Your task to perform on an android device: Open the Play Movies app and select the watchlist tab. Image 0: 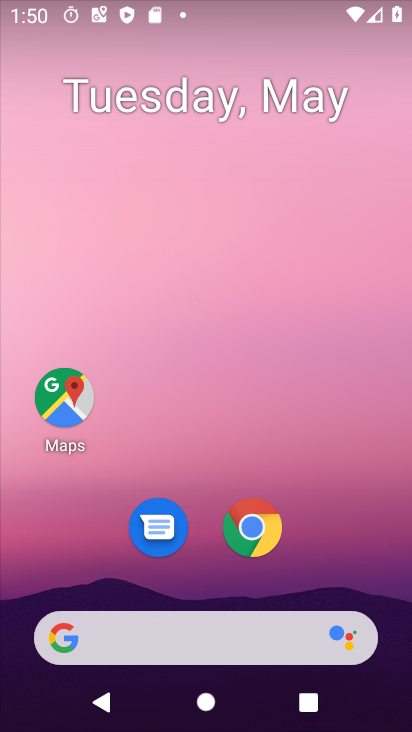
Step 0: drag from (256, 664) to (146, 192)
Your task to perform on an android device: Open the Play Movies app and select the watchlist tab. Image 1: 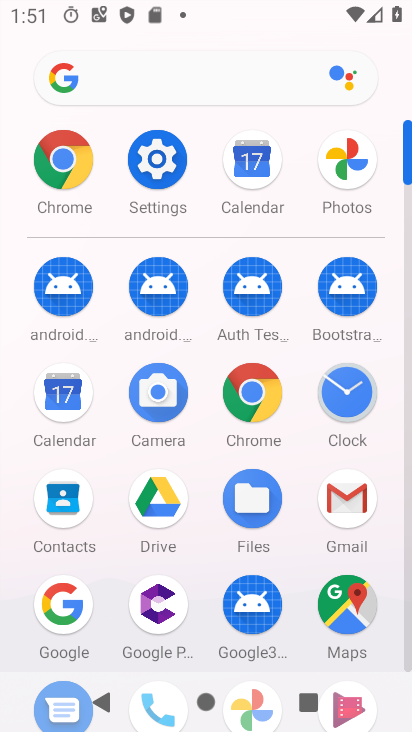
Step 1: drag from (200, 413) to (168, 236)
Your task to perform on an android device: Open the Play Movies app and select the watchlist tab. Image 2: 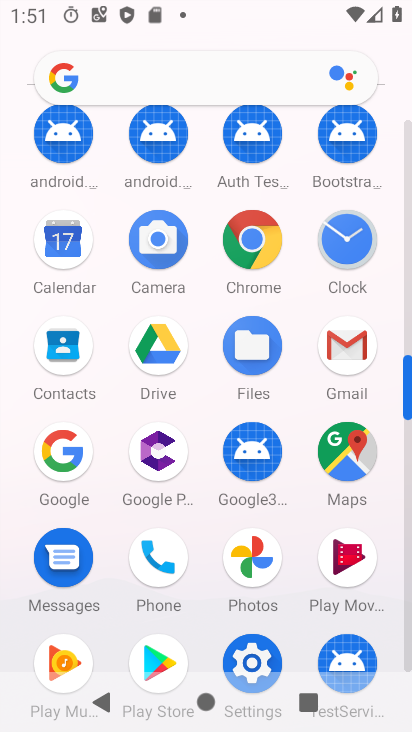
Step 2: click (335, 562)
Your task to perform on an android device: Open the Play Movies app and select the watchlist tab. Image 3: 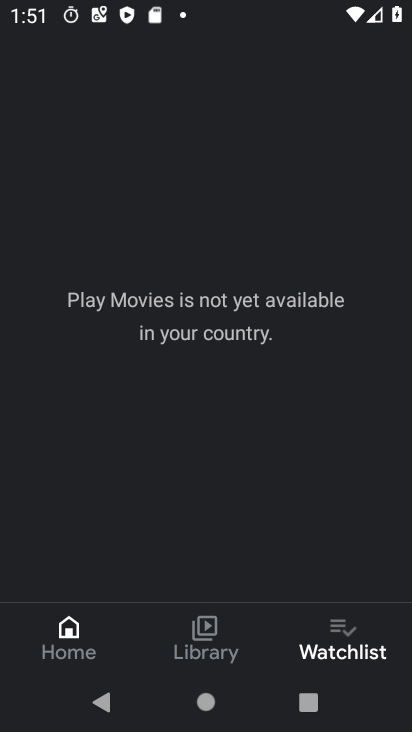
Step 3: click (339, 662)
Your task to perform on an android device: Open the Play Movies app and select the watchlist tab. Image 4: 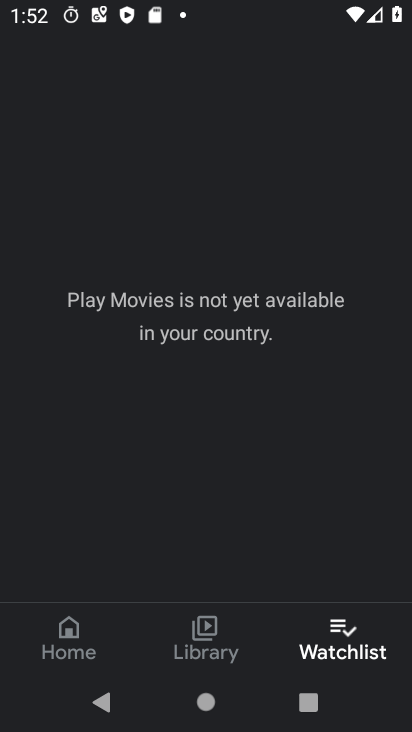
Step 4: task complete